Your task to perform on an android device: Clear the shopping cart on amazon. Add bose soundlink mini to the cart on amazon, then select checkout. Image 0: 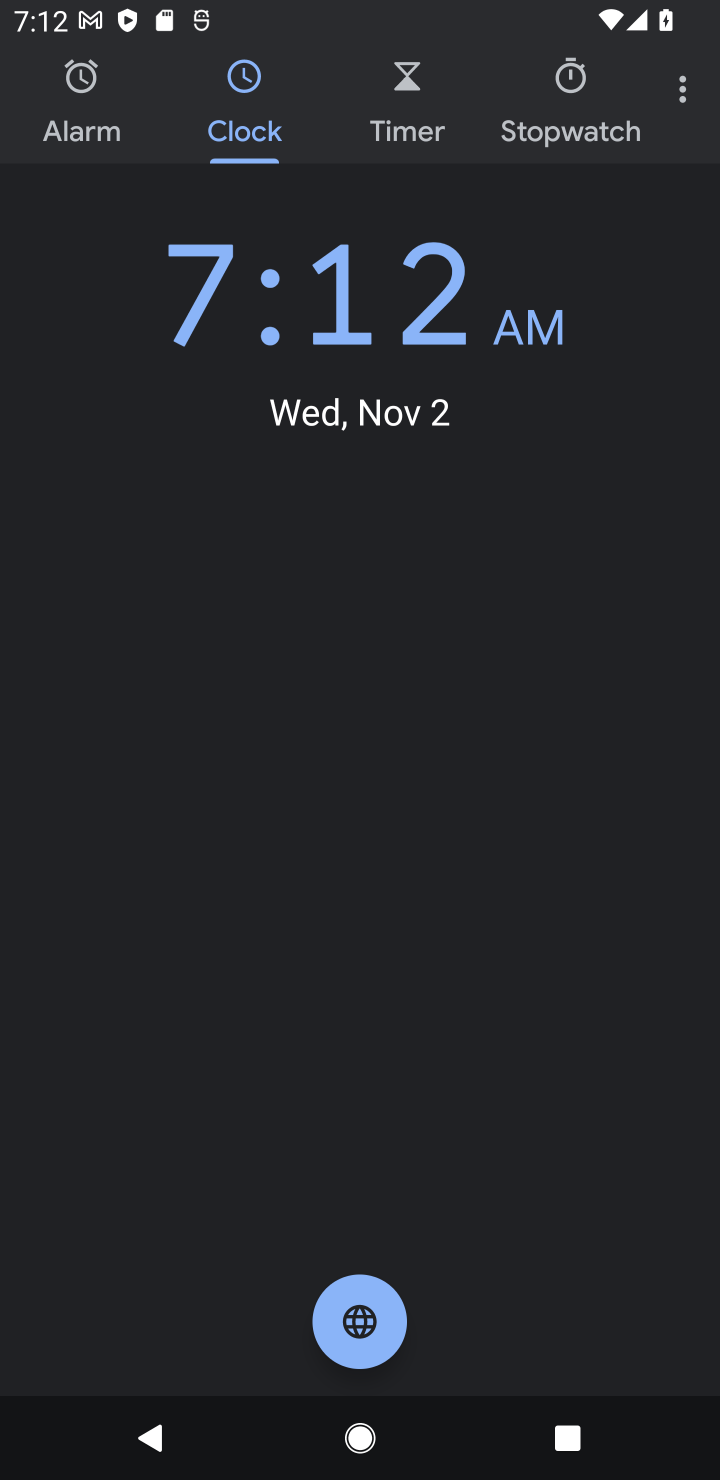
Step 0: press home button
Your task to perform on an android device: Clear the shopping cart on amazon. Add bose soundlink mini to the cart on amazon, then select checkout. Image 1: 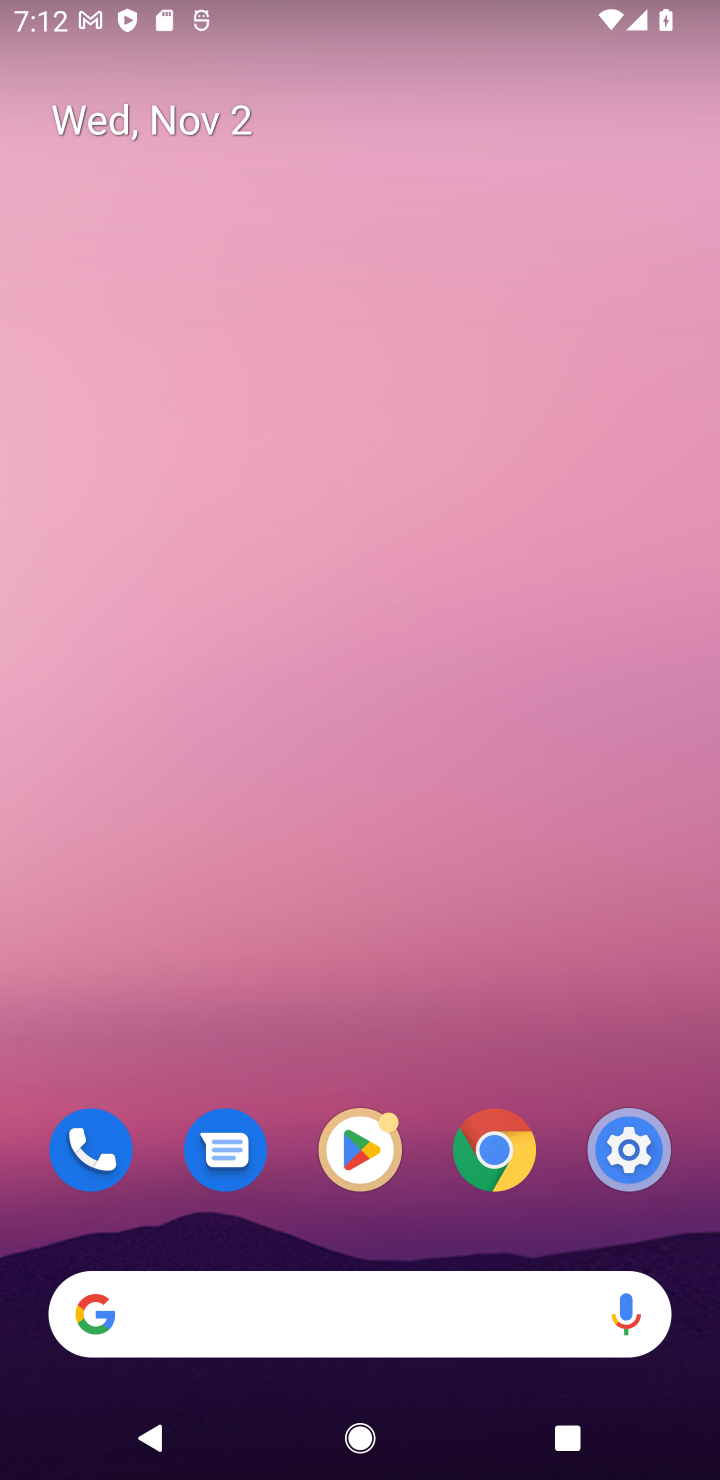
Step 1: click (491, 1148)
Your task to perform on an android device: Clear the shopping cart on amazon. Add bose soundlink mini to the cart on amazon, then select checkout. Image 2: 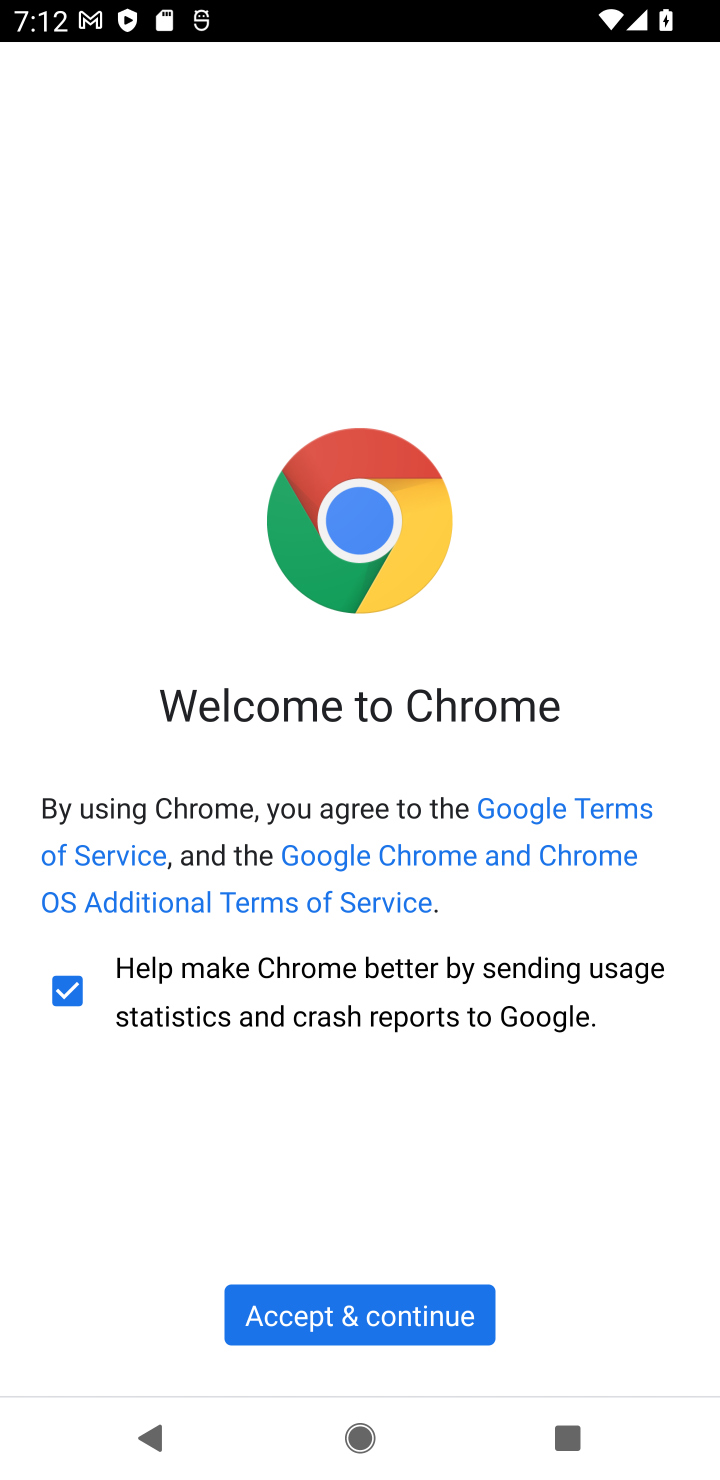
Step 2: click (411, 1297)
Your task to perform on an android device: Clear the shopping cart on amazon. Add bose soundlink mini to the cart on amazon, then select checkout. Image 3: 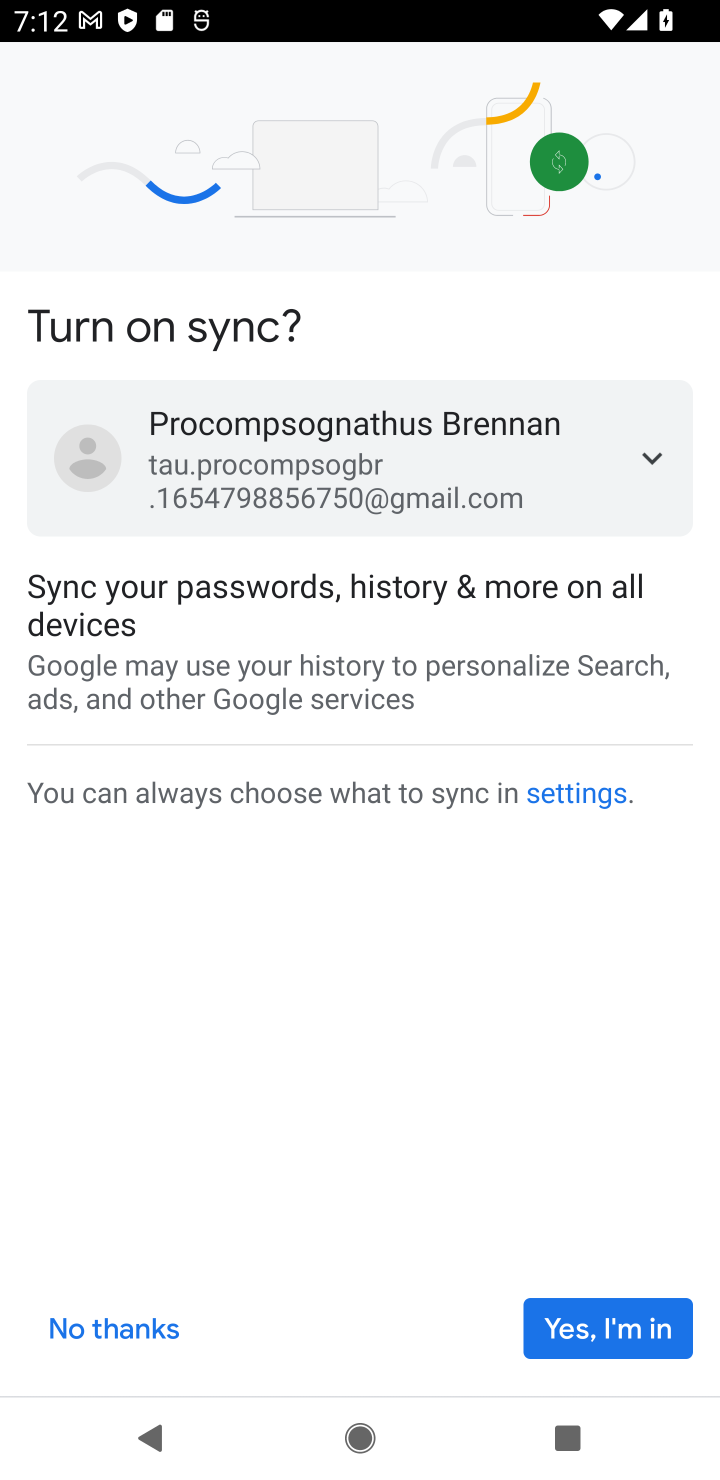
Step 3: click (624, 1331)
Your task to perform on an android device: Clear the shopping cart on amazon. Add bose soundlink mini to the cart on amazon, then select checkout. Image 4: 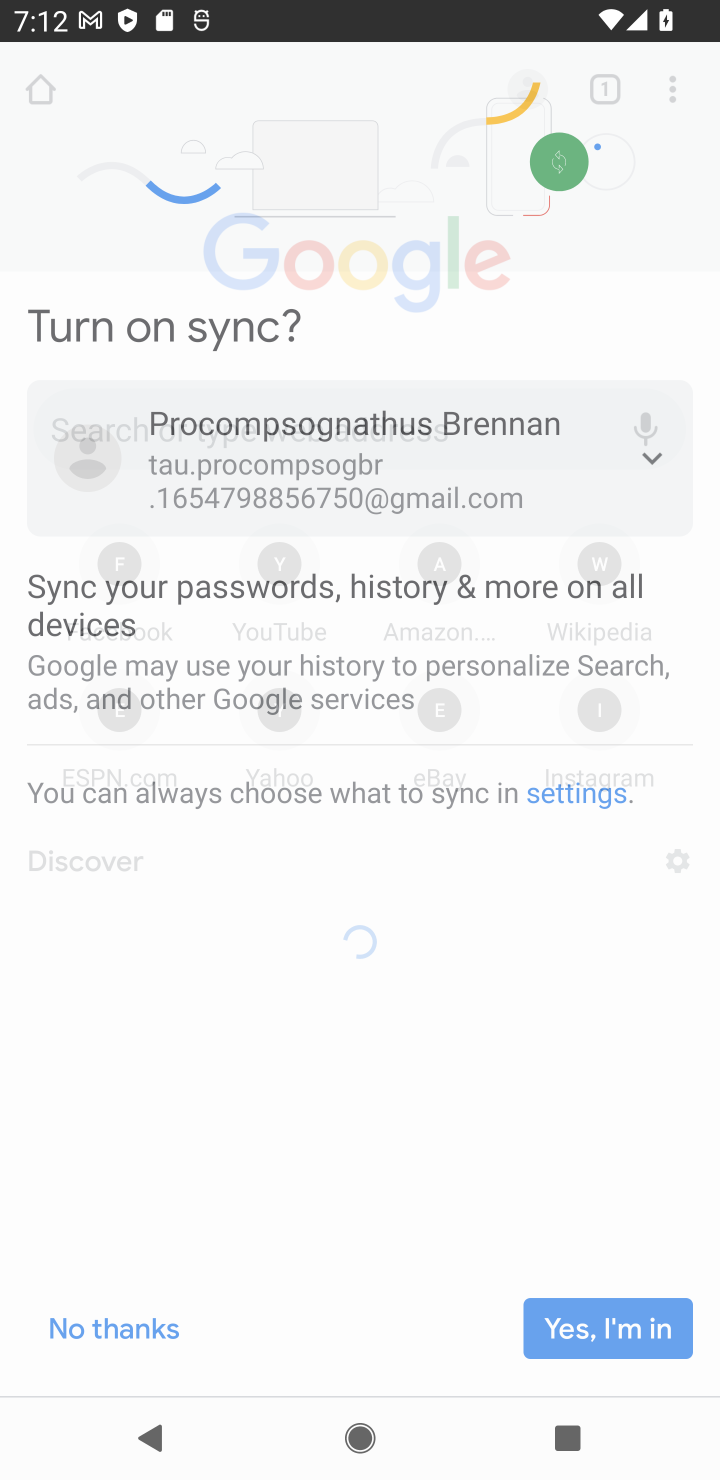
Step 4: click (624, 1337)
Your task to perform on an android device: Clear the shopping cart on amazon. Add bose soundlink mini to the cart on amazon, then select checkout. Image 5: 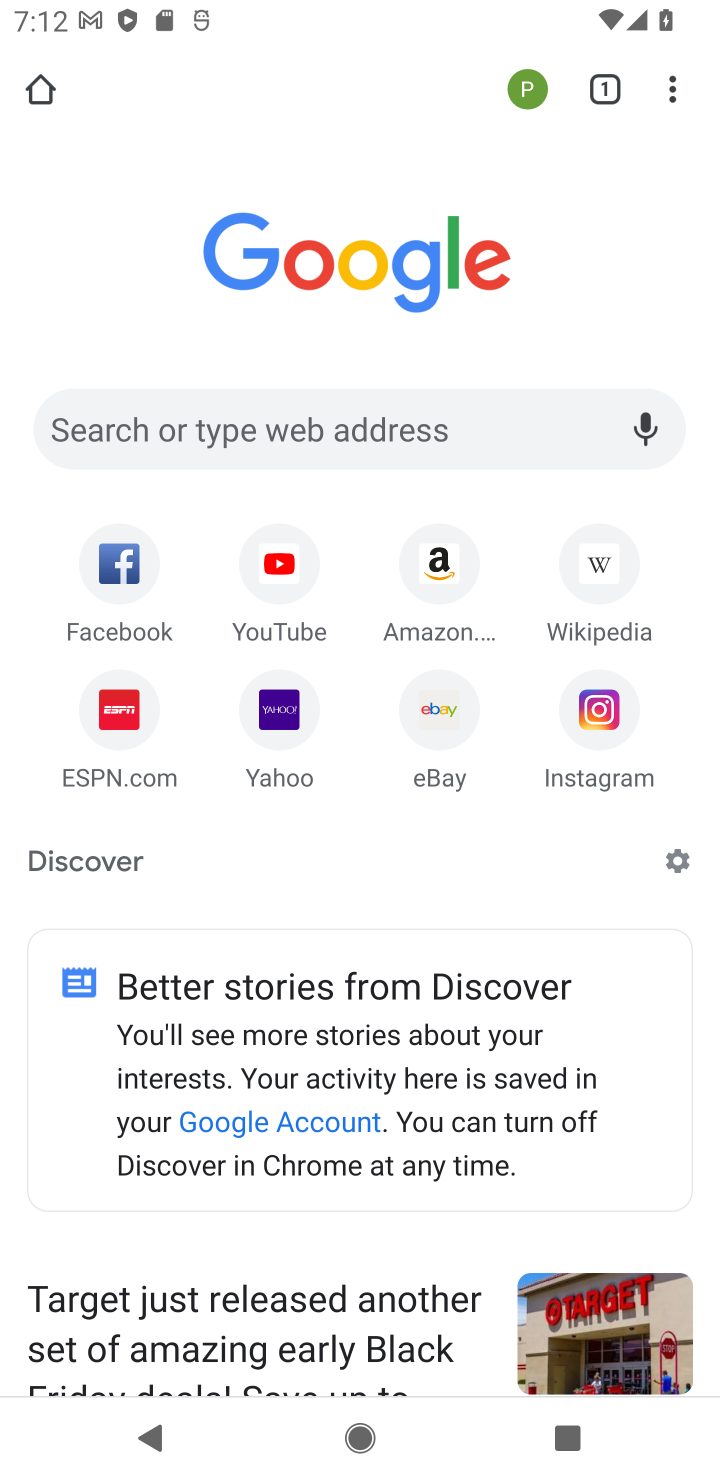
Step 5: click (385, 441)
Your task to perform on an android device: Clear the shopping cart on amazon. Add bose soundlink mini to the cart on amazon, then select checkout. Image 6: 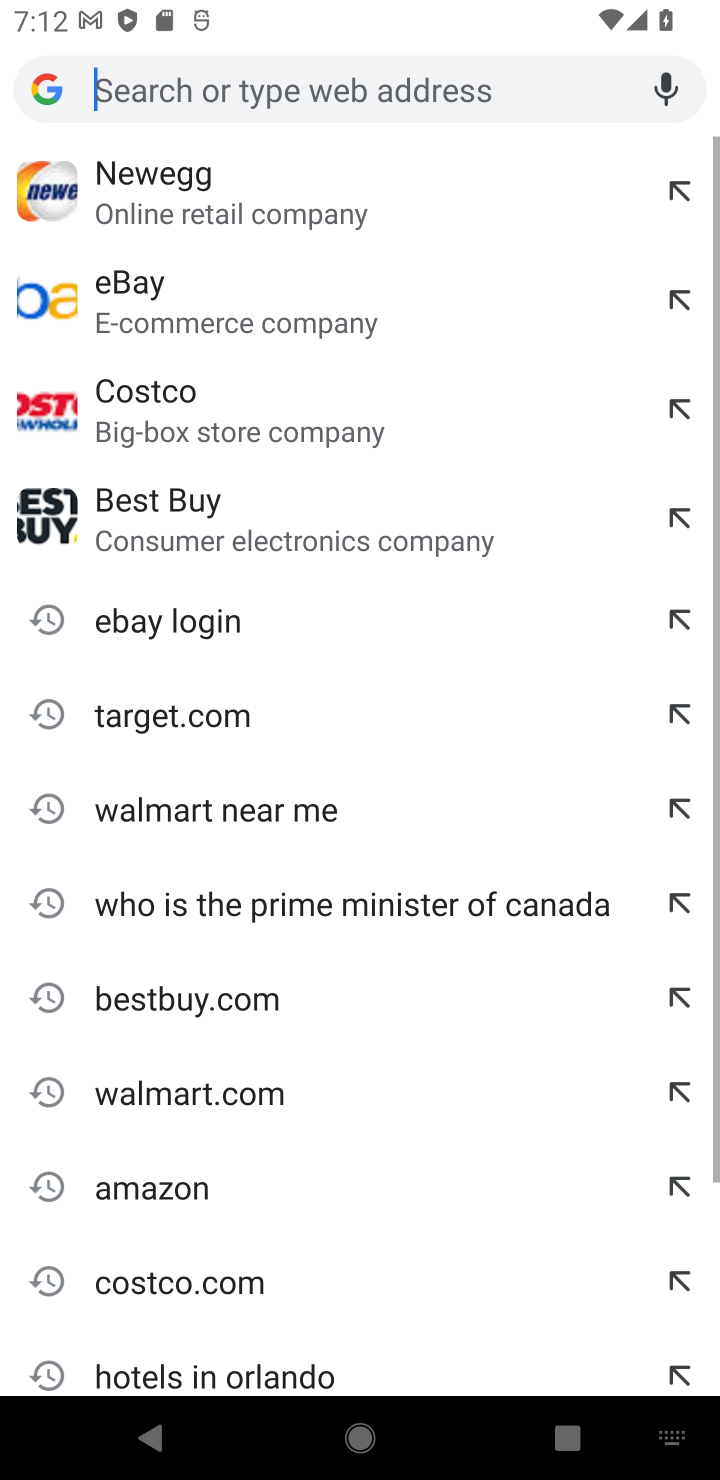
Step 6: type "amazon"
Your task to perform on an android device: Clear the shopping cart on amazon. Add bose soundlink mini to the cart on amazon, then select checkout. Image 7: 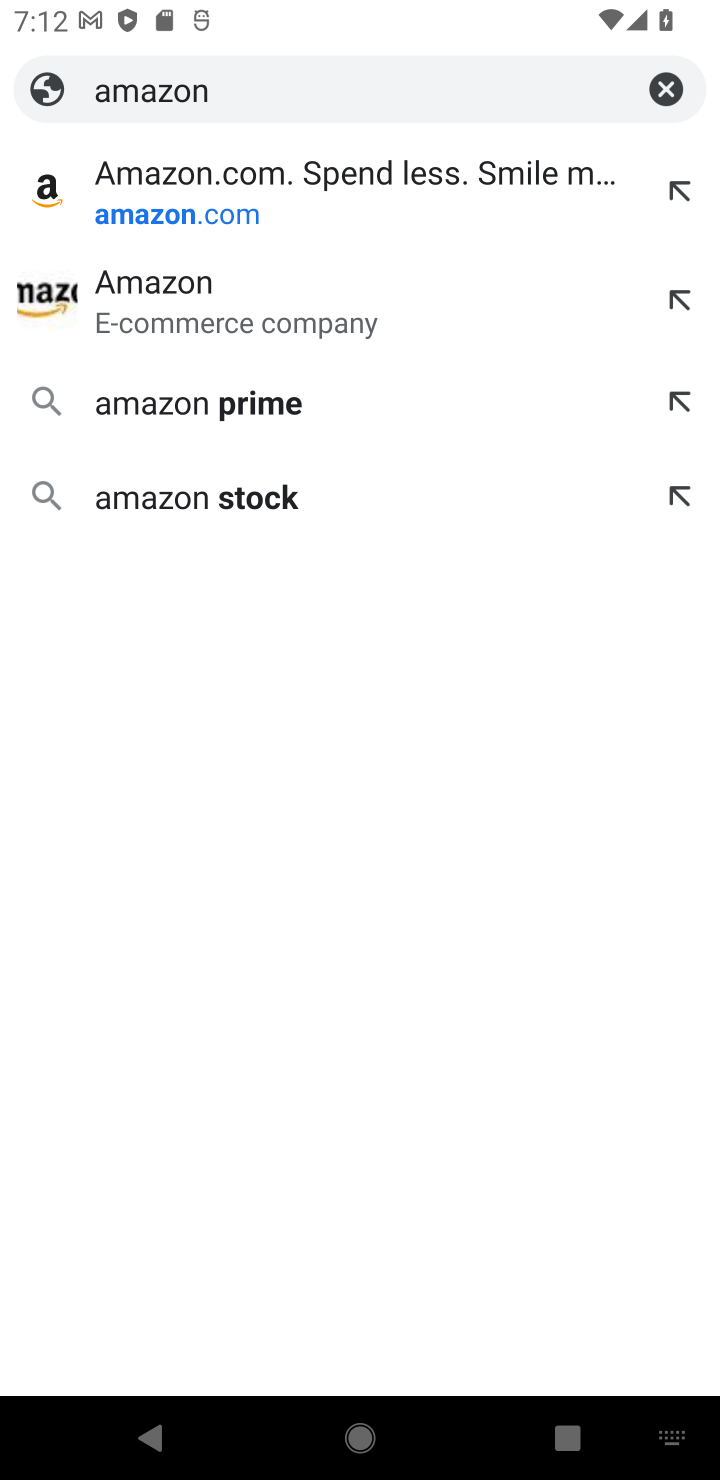
Step 7: click (221, 185)
Your task to perform on an android device: Clear the shopping cart on amazon. Add bose soundlink mini to the cart on amazon, then select checkout. Image 8: 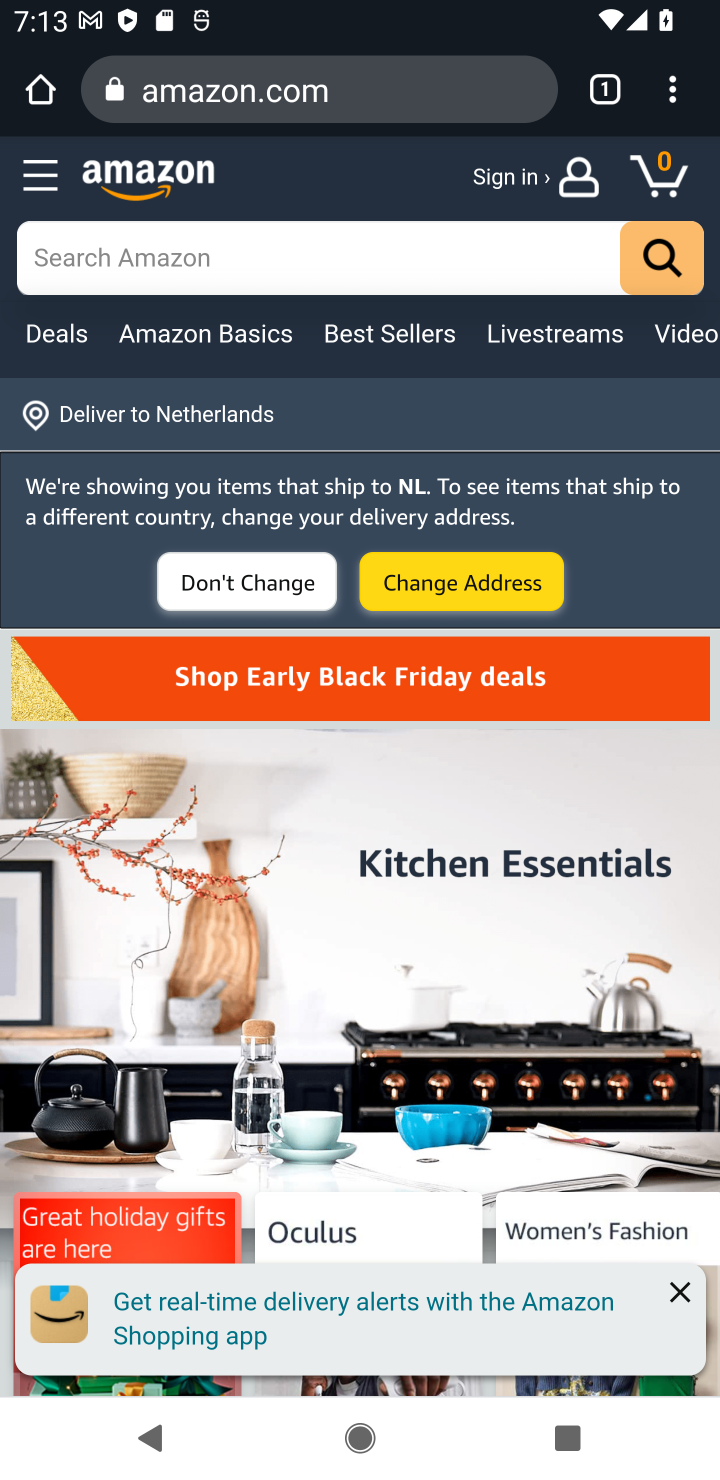
Step 8: click (286, 243)
Your task to perform on an android device: Clear the shopping cart on amazon. Add bose soundlink mini to the cart on amazon, then select checkout. Image 9: 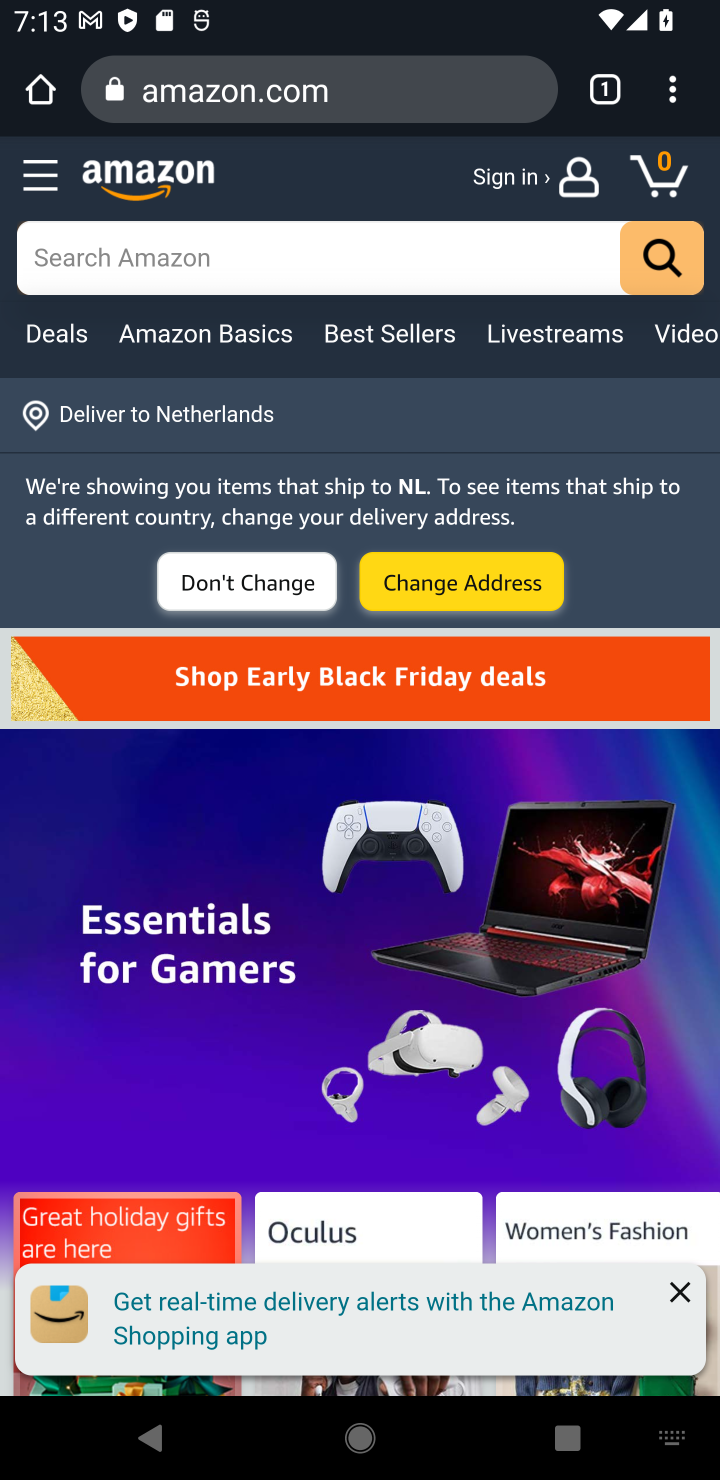
Step 9: type "bose soundlink mini"
Your task to perform on an android device: Clear the shopping cart on amazon. Add bose soundlink mini to the cart on amazon, then select checkout. Image 10: 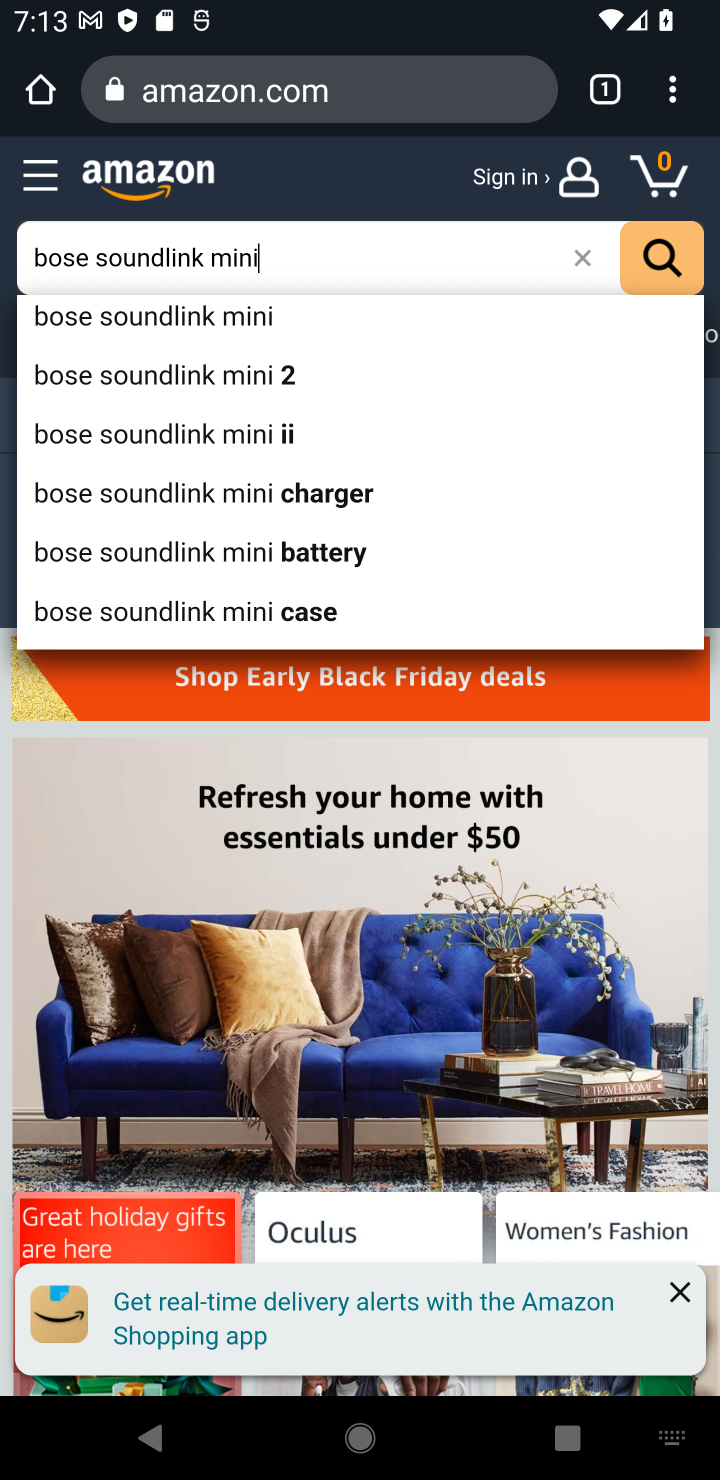
Step 10: click (227, 307)
Your task to perform on an android device: Clear the shopping cart on amazon. Add bose soundlink mini to the cart on amazon, then select checkout. Image 11: 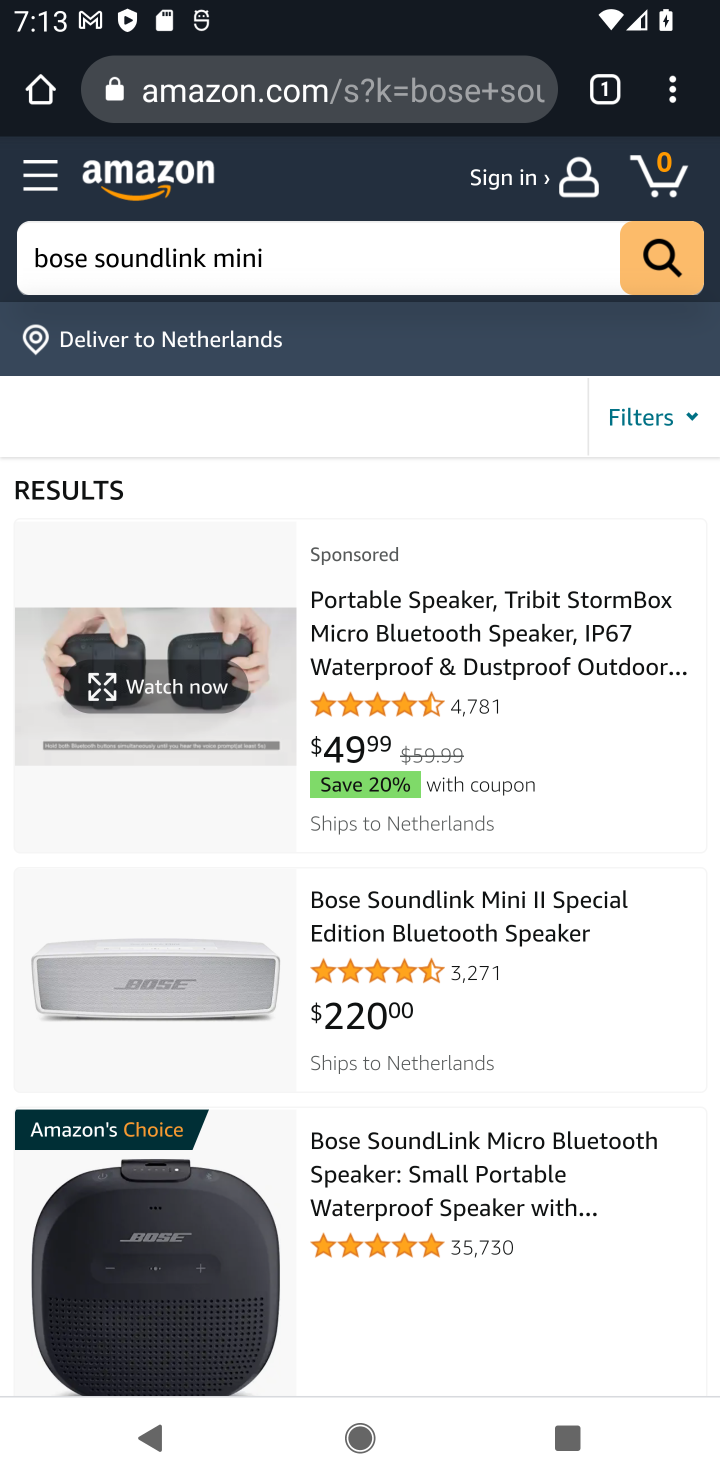
Step 11: click (437, 942)
Your task to perform on an android device: Clear the shopping cart on amazon. Add bose soundlink mini to the cart on amazon, then select checkout. Image 12: 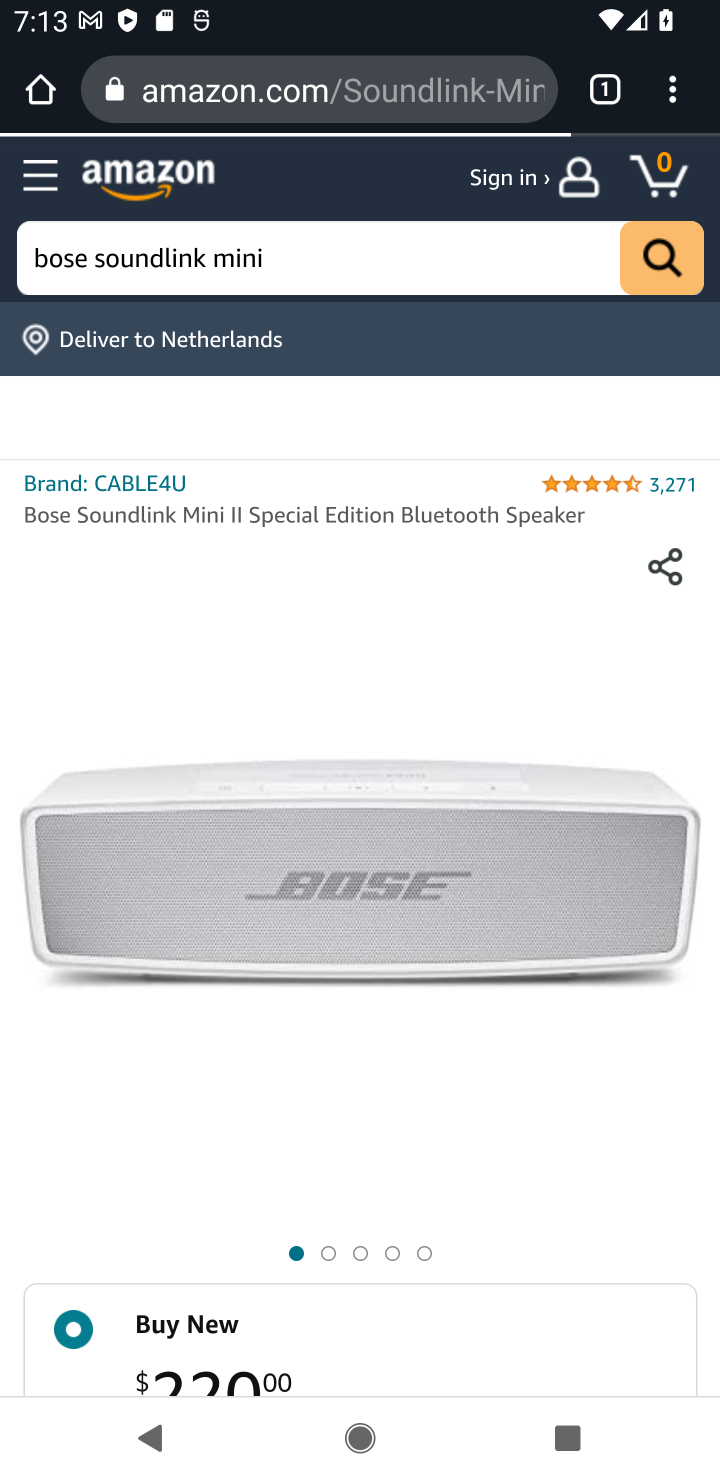
Step 12: drag from (350, 1171) to (280, 41)
Your task to perform on an android device: Clear the shopping cart on amazon. Add bose soundlink mini to the cart on amazon, then select checkout. Image 13: 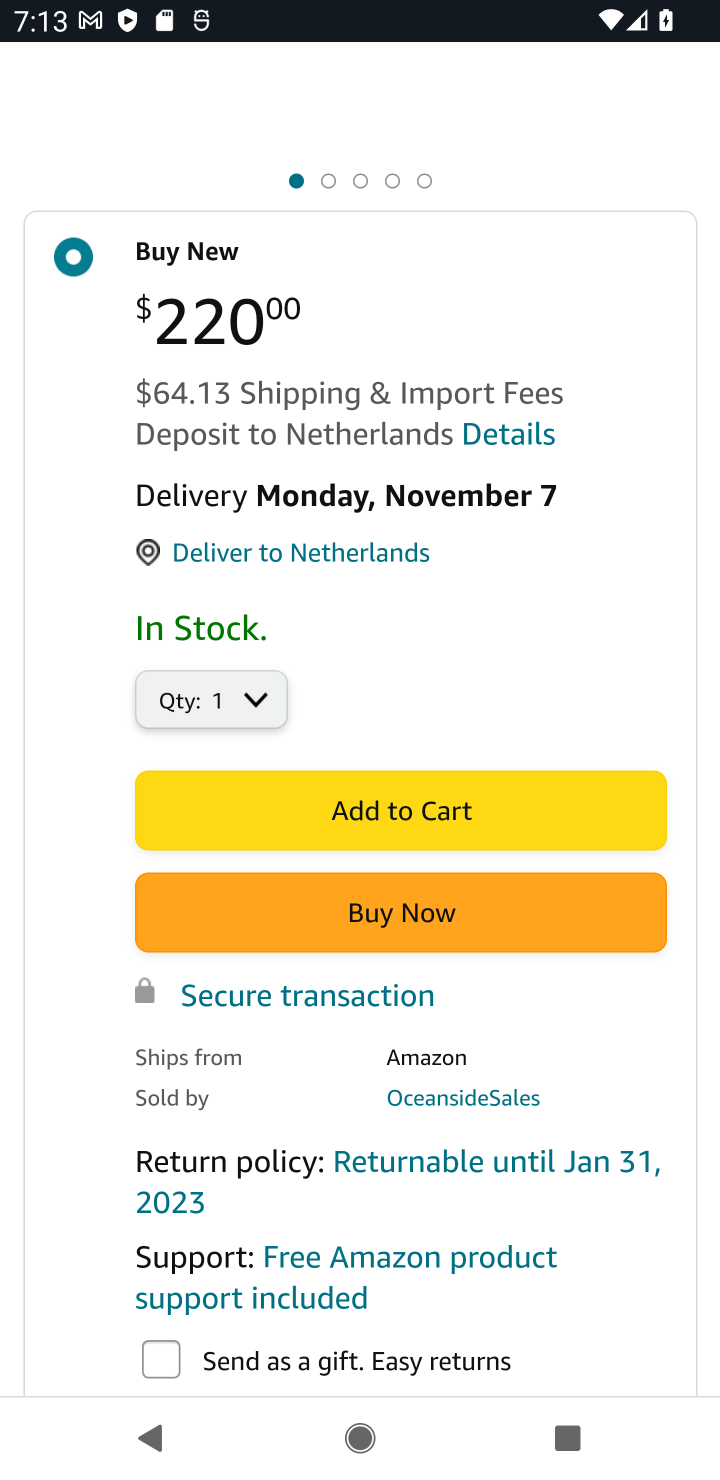
Step 13: click (390, 819)
Your task to perform on an android device: Clear the shopping cart on amazon. Add bose soundlink mini to the cart on amazon, then select checkout. Image 14: 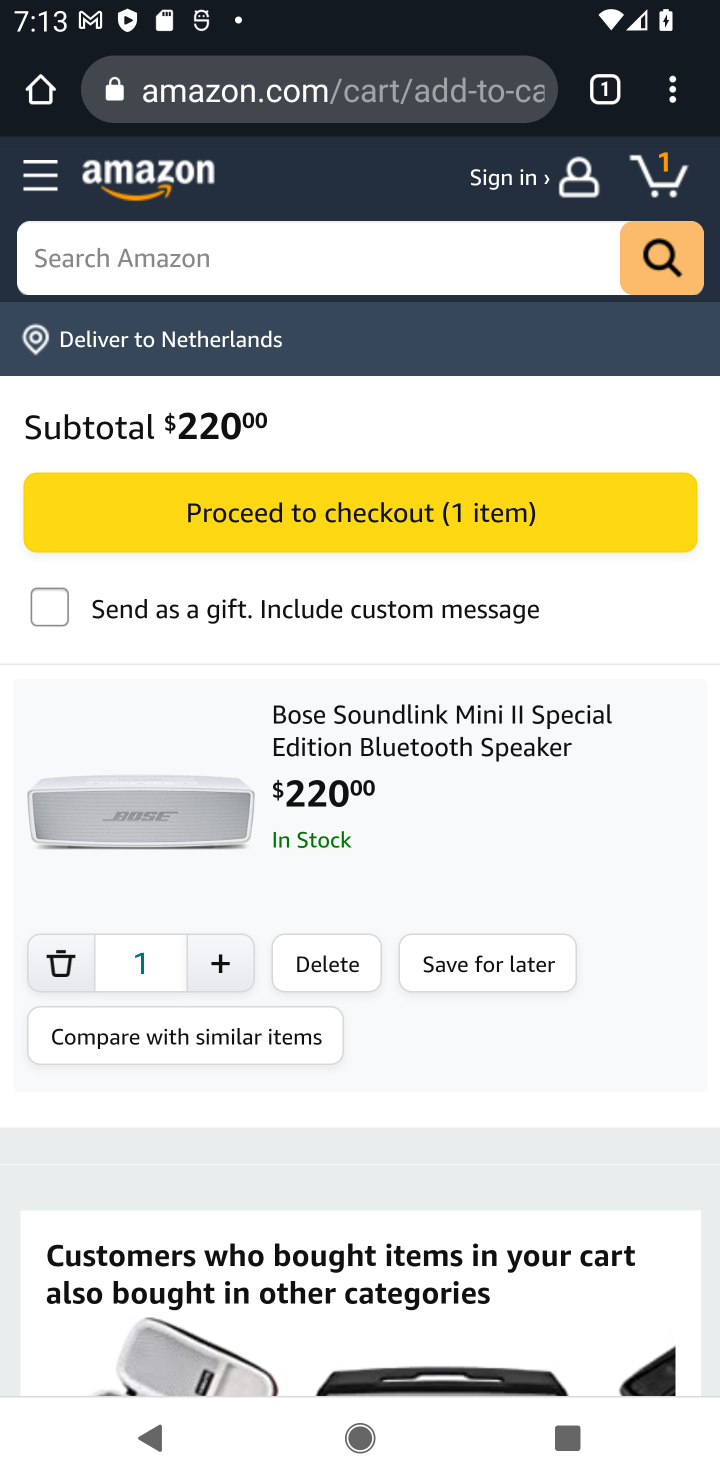
Step 14: task complete